Your task to perform on an android device: Go to battery settings Image 0: 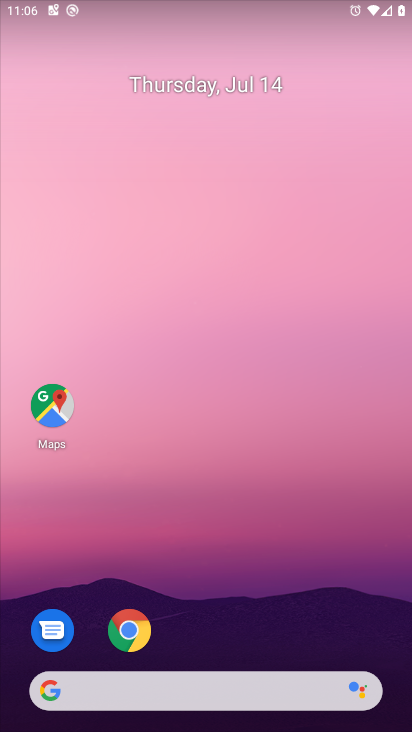
Step 0: drag from (32, 694) to (126, 218)
Your task to perform on an android device: Go to battery settings Image 1: 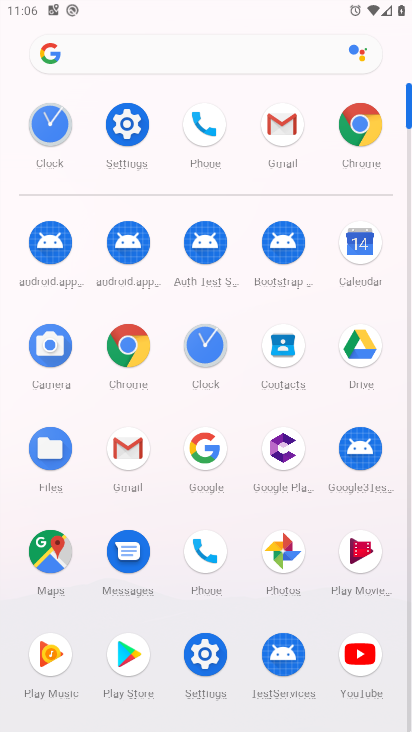
Step 1: click (190, 660)
Your task to perform on an android device: Go to battery settings Image 2: 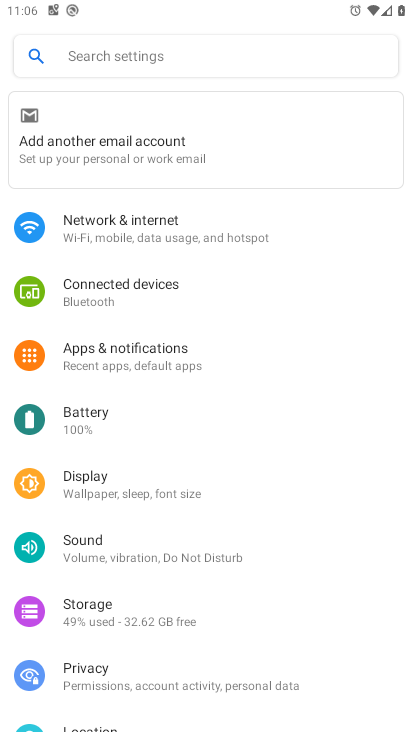
Step 2: click (130, 426)
Your task to perform on an android device: Go to battery settings Image 3: 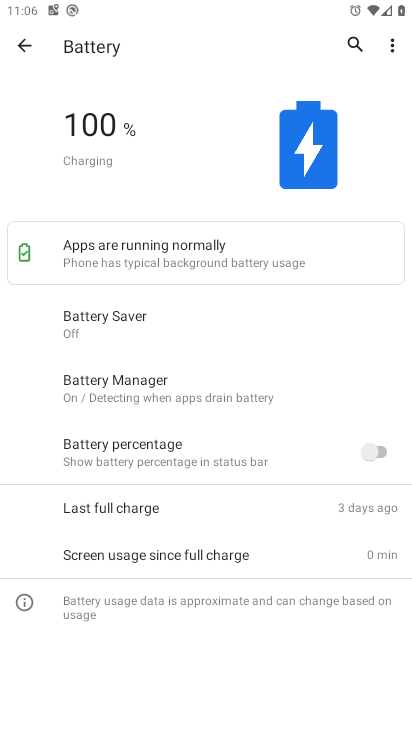
Step 3: task complete